Your task to perform on an android device: toggle airplane mode Image 0: 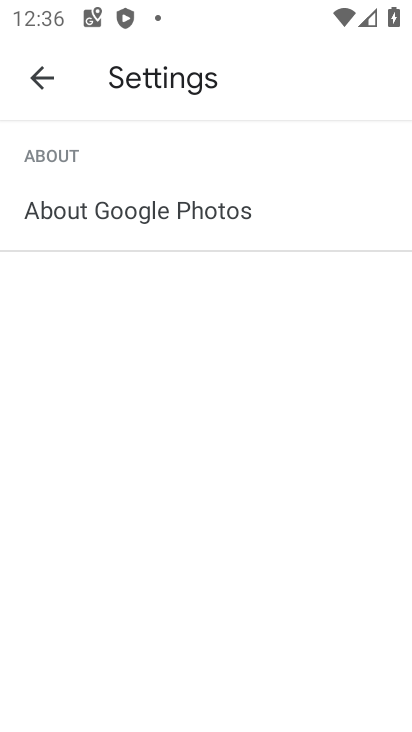
Step 0: press home button
Your task to perform on an android device: toggle airplane mode Image 1: 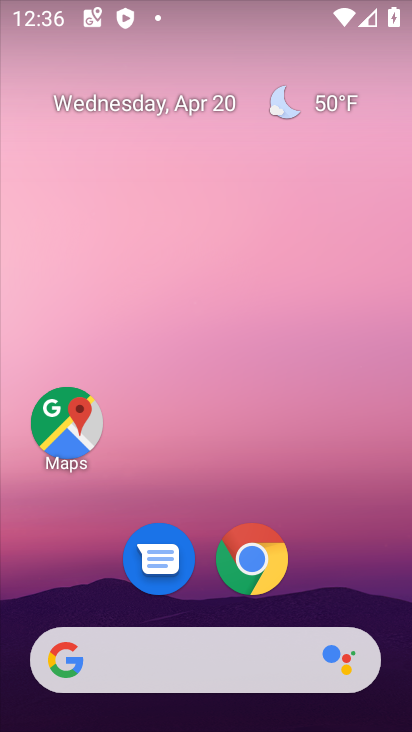
Step 1: drag from (323, 576) to (330, 67)
Your task to perform on an android device: toggle airplane mode Image 2: 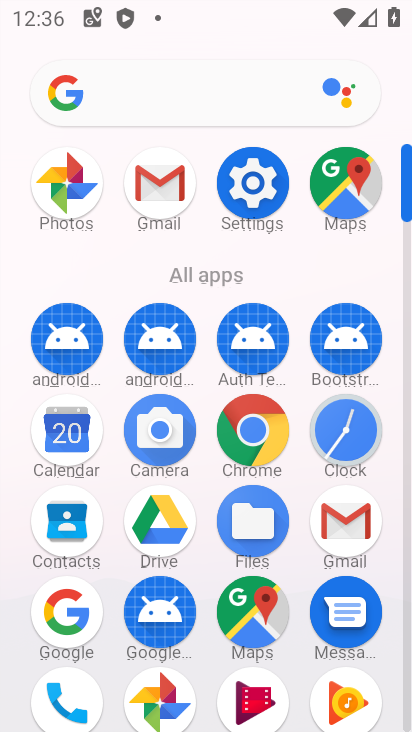
Step 2: click (242, 186)
Your task to perform on an android device: toggle airplane mode Image 3: 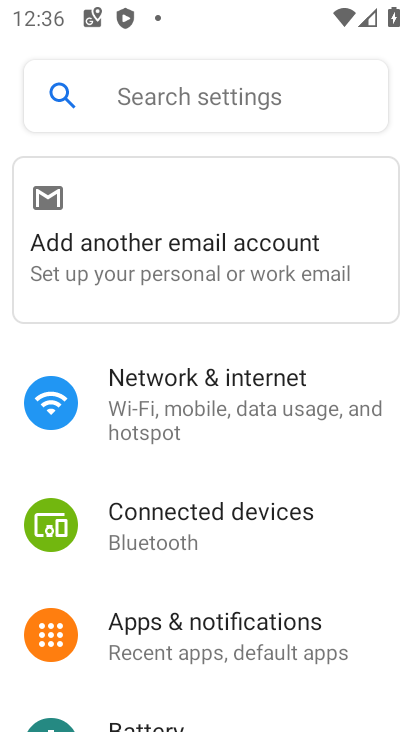
Step 3: click (168, 403)
Your task to perform on an android device: toggle airplane mode Image 4: 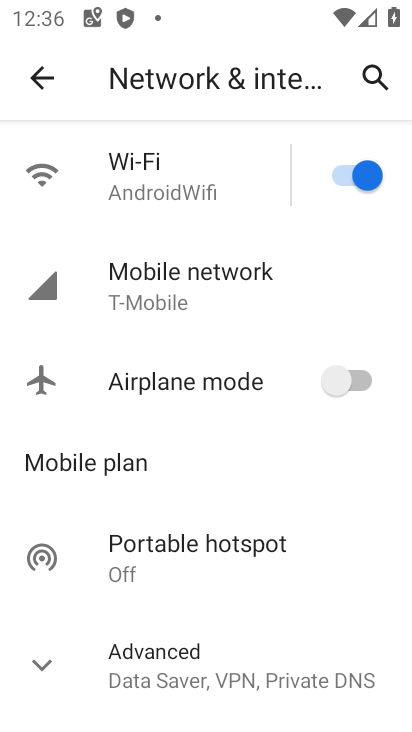
Step 4: click (333, 380)
Your task to perform on an android device: toggle airplane mode Image 5: 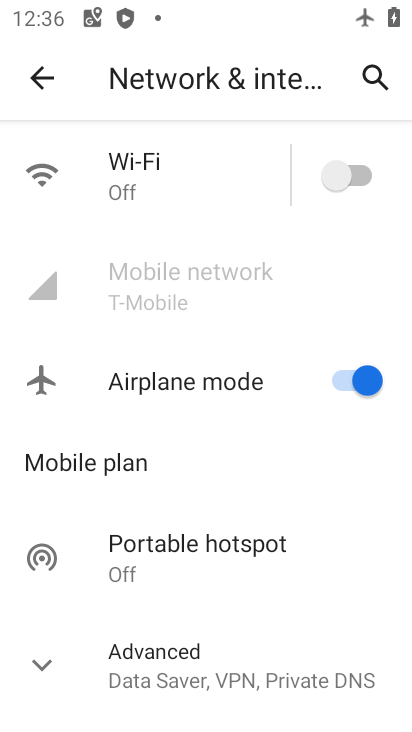
Step 5: task complete